Your task to perform on an android device: Open settings Image 0: 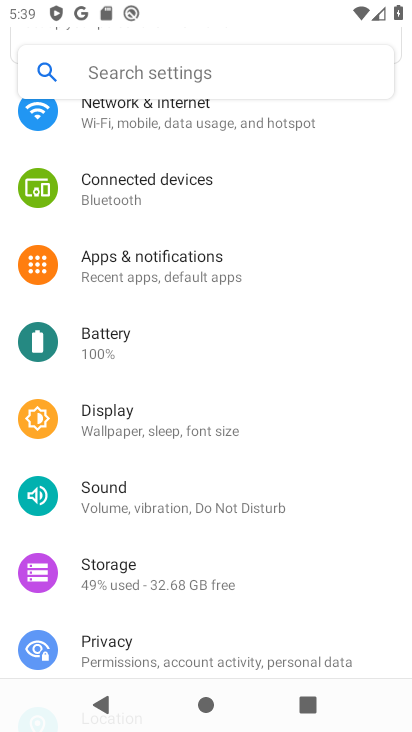
Step 0: task complete